Your task to perform on an android device: Open Youtube and go to "Your channel" Image 0: 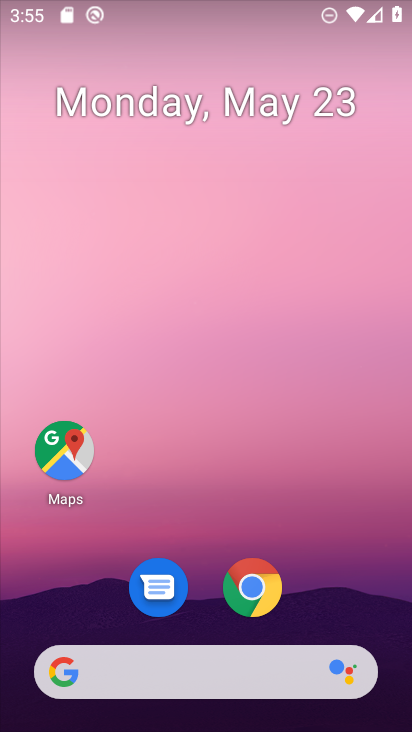
Step 0: drag from (214, 613) to (259, 66)
Your task to perform on an android device: Open Youtube and go to "Your channel" Image 1: 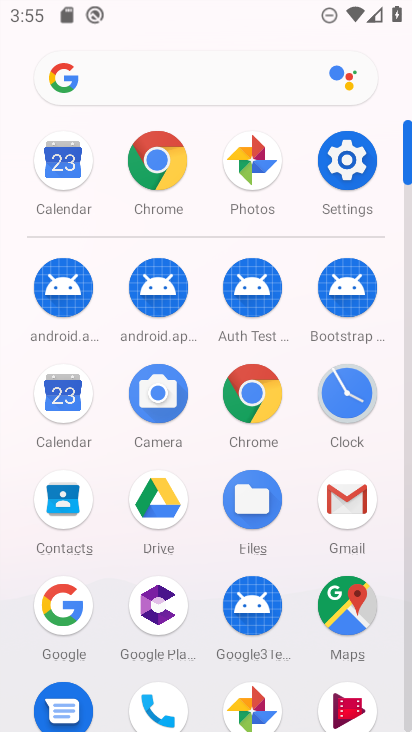
Step 1: drag from (192, 642) to (234, 1)
Your task to perform on an android device: Open Youtube and go to "Your channel" Image 2: 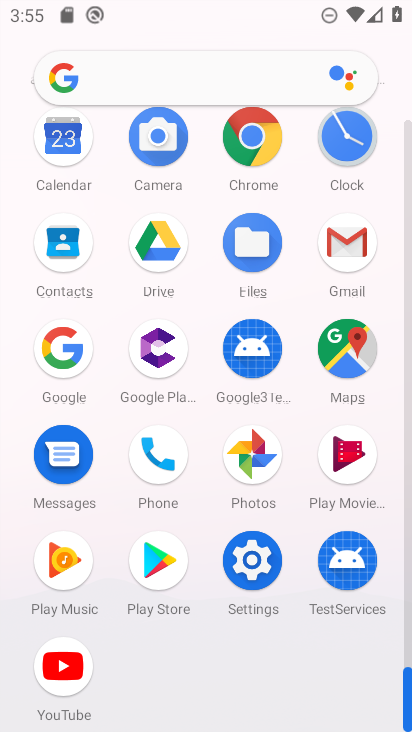
Step 2: click (54, 670)
Your task to perform on an android device: Open Youtube and go to "Your channel" Image 3: 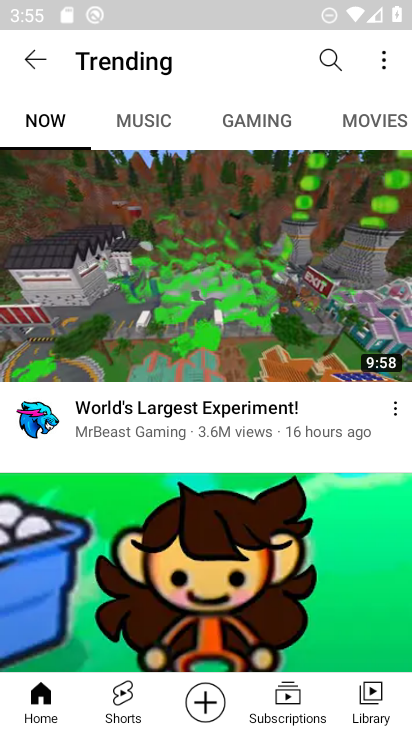
Step 3: click (32, 57)
Your task to perform on an android device: Open Youtube and go to "Your channel" Image 4: 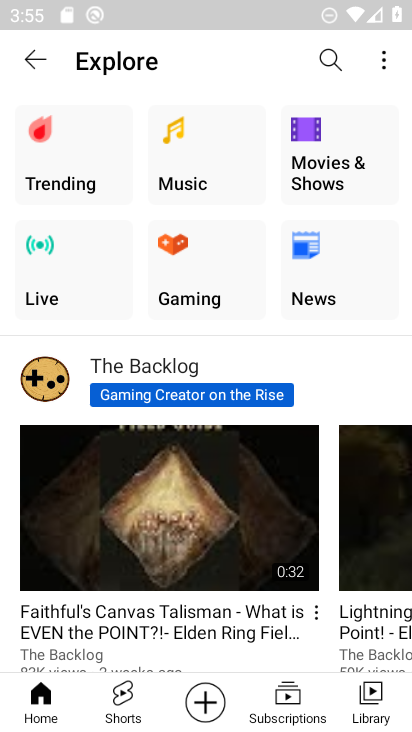
Step 4: click (21, 54)
Your task to perform on an android device: Open Youtube and go to "Your channel" Image 5: 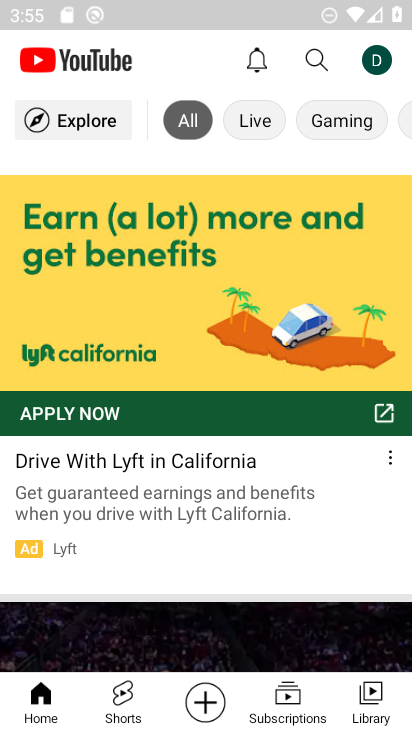
Step 5: click (374, 62)
Your task to perform on an android device: Open Youtube and go to "Your channel" Image 6: 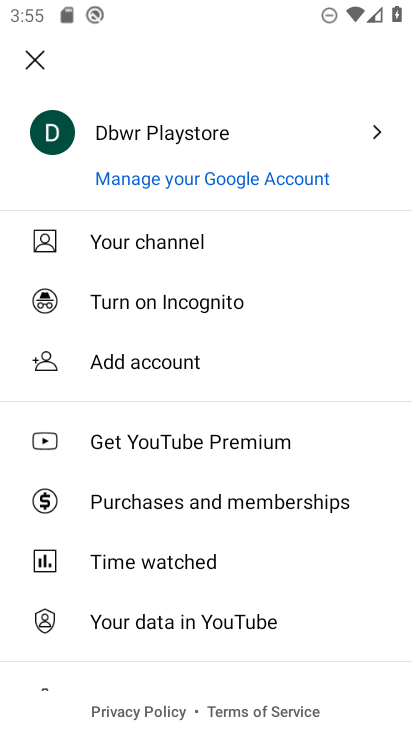
Step 6: click (168, 248)
Your task to perform on an android device: Open Youtube and go to "Your channel" Image 7: 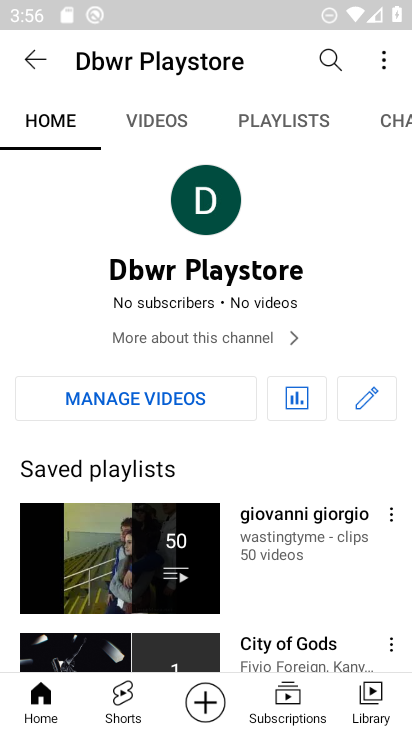
Step 7: task complete